Your task to perform on an android device: Open calendar and show me the third week of next month Image 0: 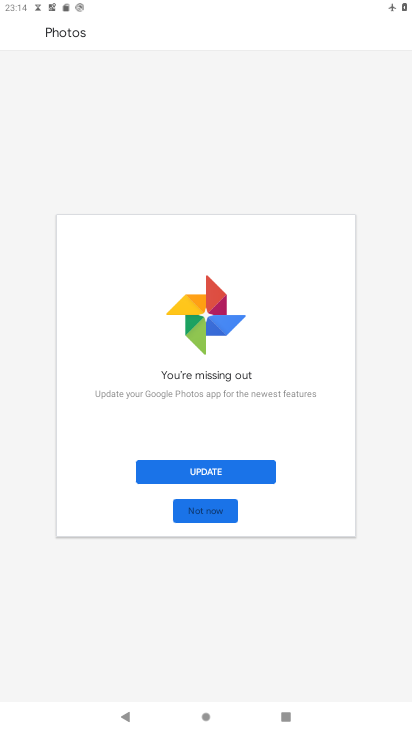
Step 0: press home button
Your task to perform on an android device: Open calendar and show me the third week of next month Image 1: 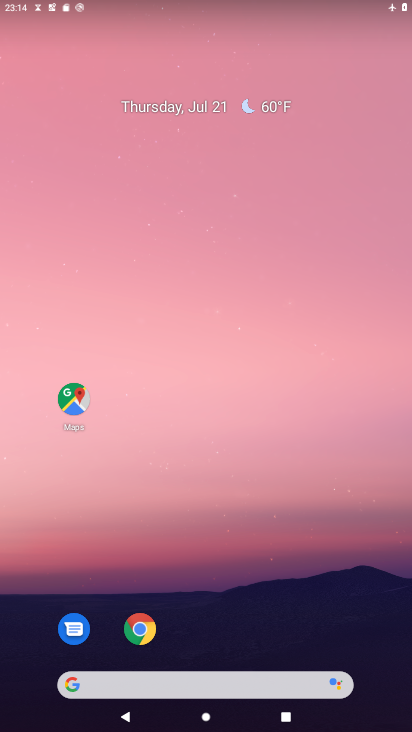
Step 1: drag from (216, 629) to (198, 438)
Your task to perform on an android device: Open calendar and show me the third week of next month Image 2: 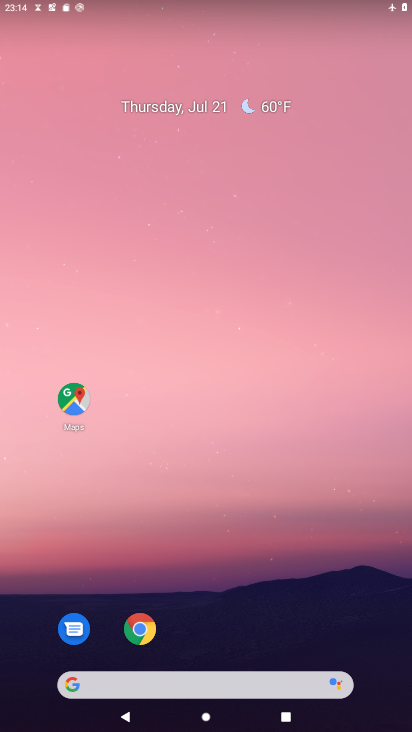
Step 2: drag from (243, 642) to (246, 583)
Your task to perform on an android device: Open calendar and show me the third week of next month Image 3: 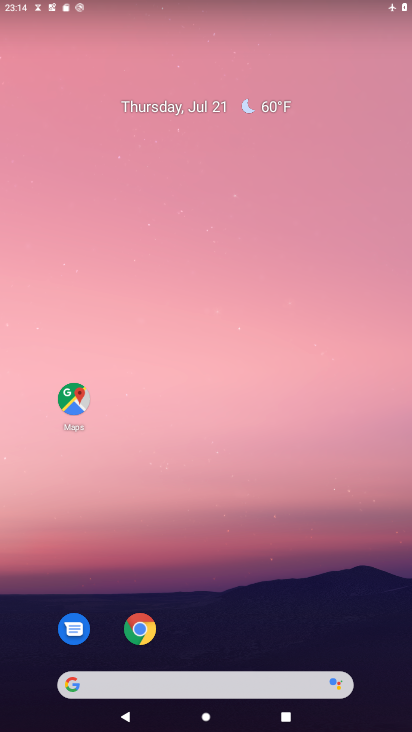
Step 3: drag from (267, 593) to (281, 321)
Your task to perform on an android device: Open calendar and show me the third week of next month Image 4: 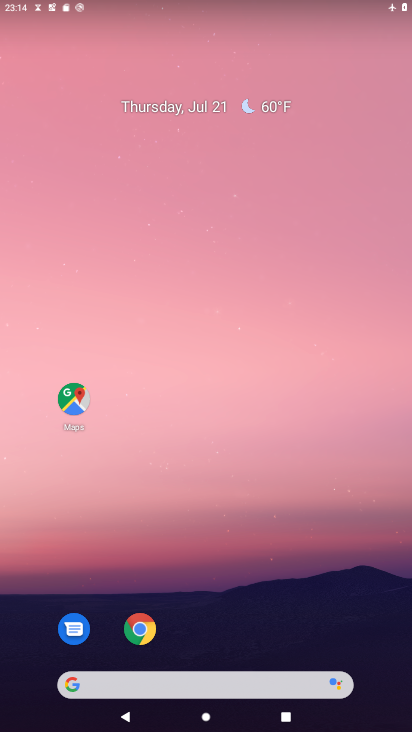
Step 4: drag from (262, 610) to (260, 293)
Your task to perform on an android device: Open calendar and show me the third week of next month Image 5: 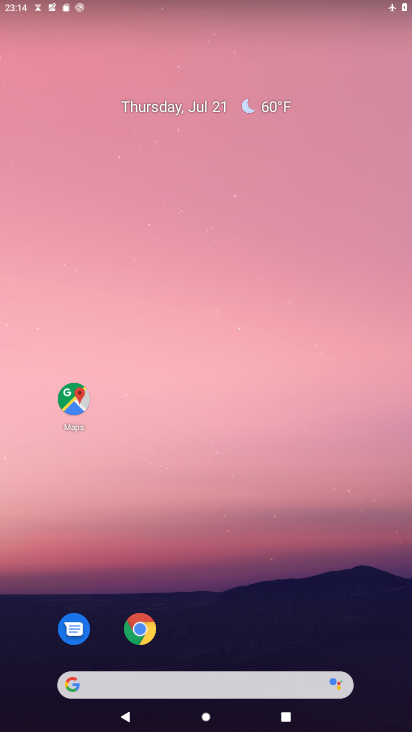
Step 5: drag from (215, 624) to (211, 358)
Your task to perform on an android device: Open calendar and show me the third week of next month Image 6: 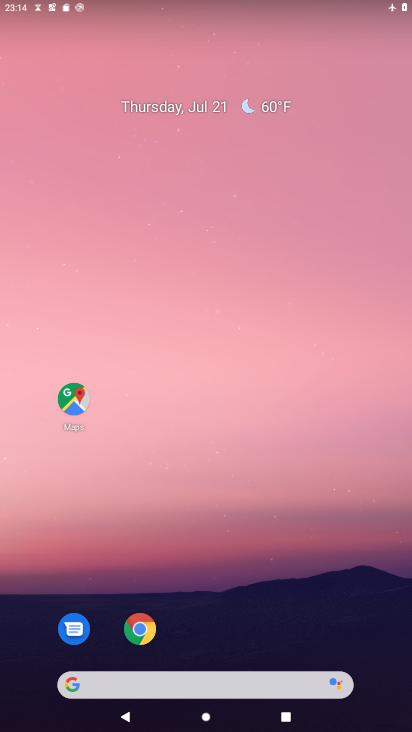
Step 6: drag from (313, 613) to (319, 244)
Your task to perform on an android device: Open calendar and show me the third week of next month Image 7: 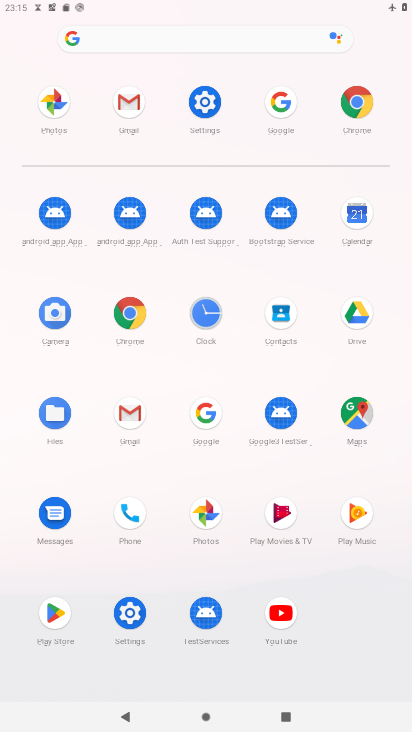
Step 7: click (367, 211)
Your task to perform on an android device: Open calendar and show me the third week of next month Image 8: 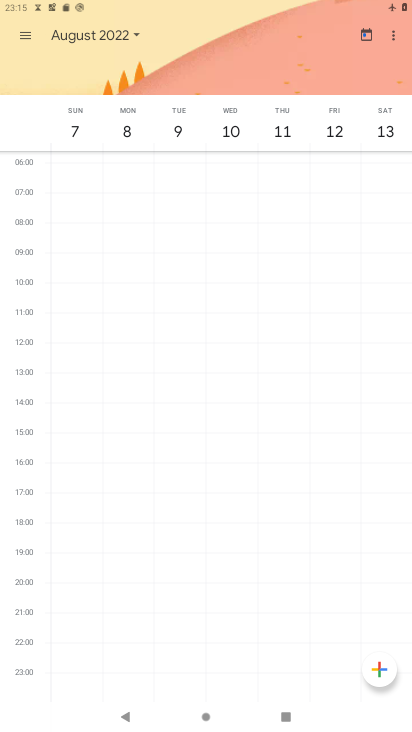
Step 8: task complete